Your task to perform on an android device: Go to network settings Image 0: 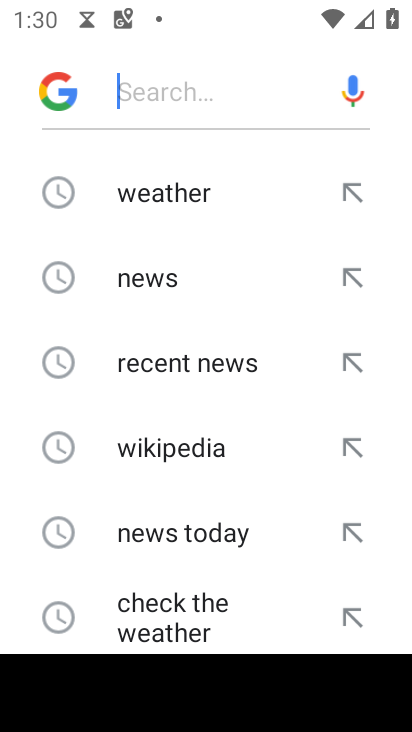
Step 0: press home button
Your task to perform on an android device: Go to network settings Image 1: 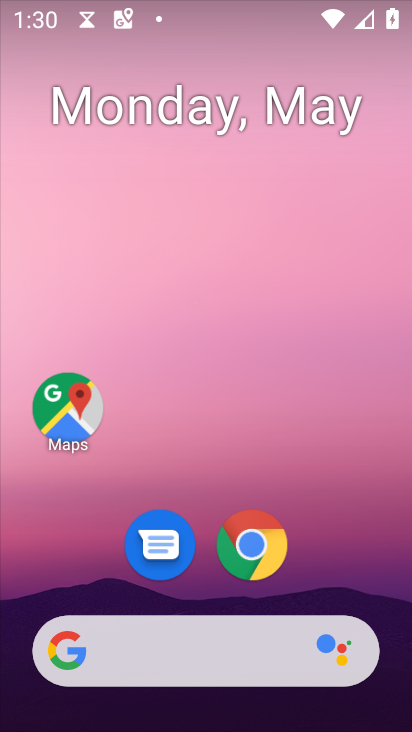
Step 1: drag from (329, 582) to (309, 93)
Your task to perform on an android device: Go to network settings Image 2: 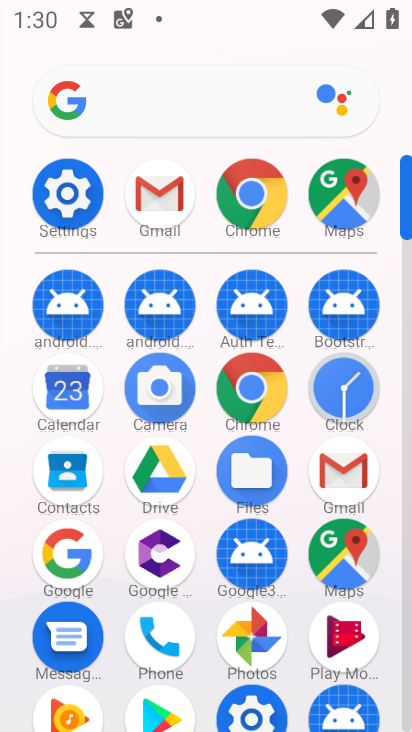
Step 2: click (78, 201)
Your task to perform on an android device: Go to network settings Image 3: 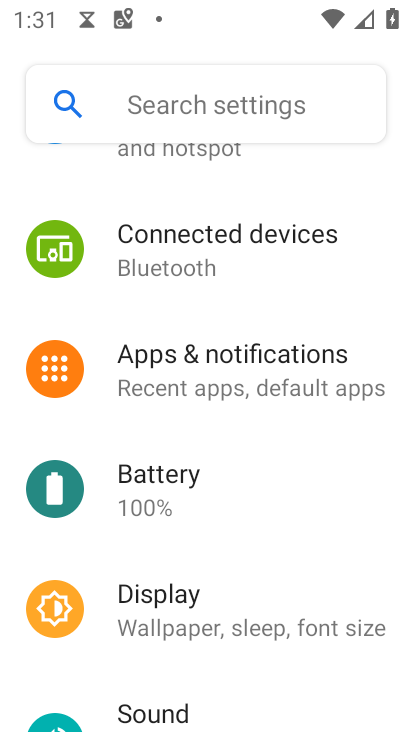
Step 3: drag from (183, 210) to (213, 428)
Your task to perform on an android device: Go to network settings Image 4: 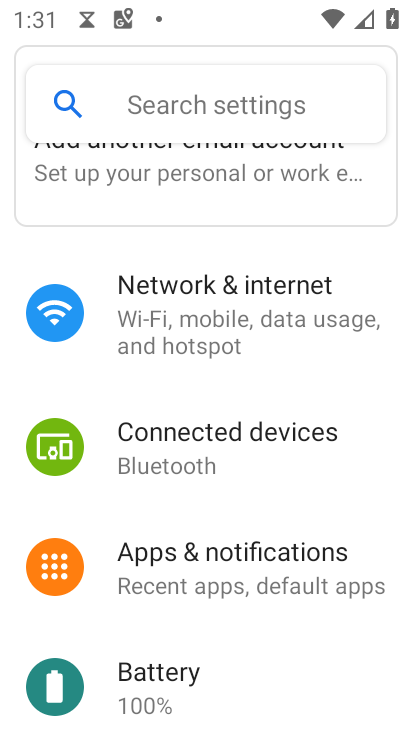
Step 4: click (187, 331)
Your task to perform on an android device: Go to network settings Image 5: 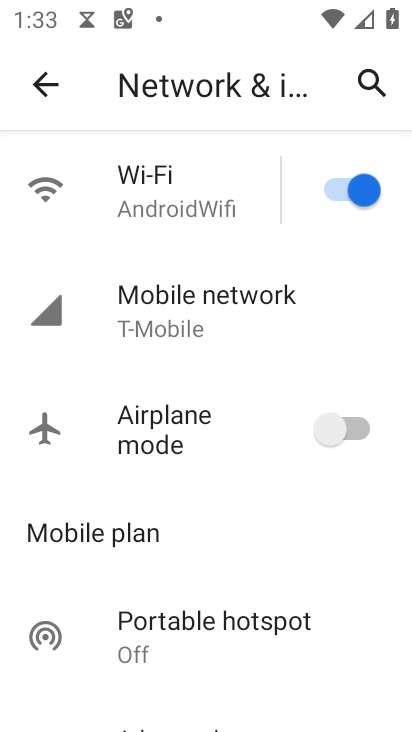
Step 5: task complete